Your task to perform on an android device: add a label to a message in the gmail app Image 0: 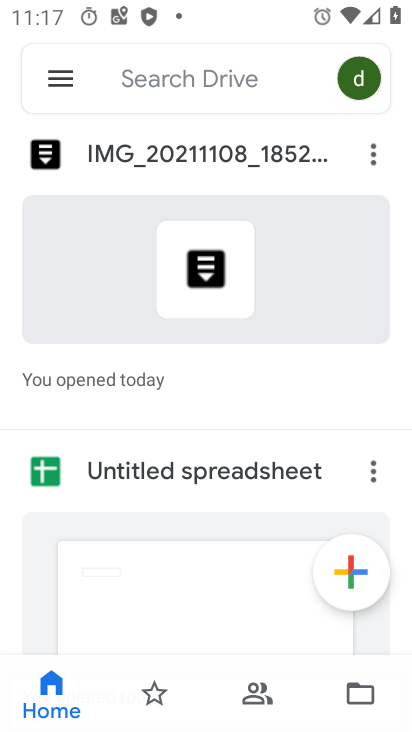
Step 0: press home button
Your task to perform on an android device: add a label to a message in the gmail app Image 1: 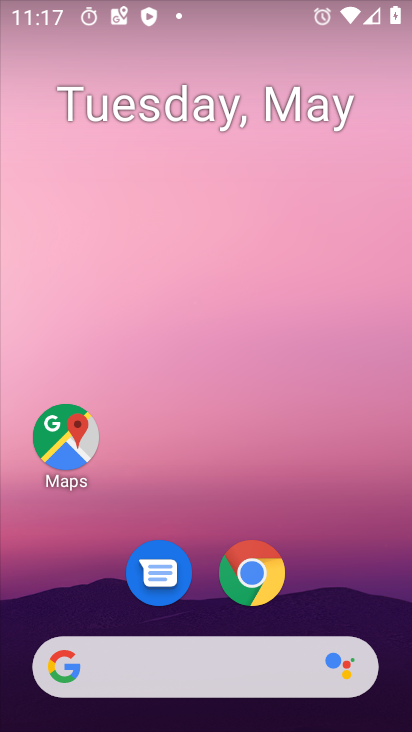
Step 1: drag from (270, 687) to (292, 29)
Your task to perform on an android device: add a label to a message in the gmail app Image 2: 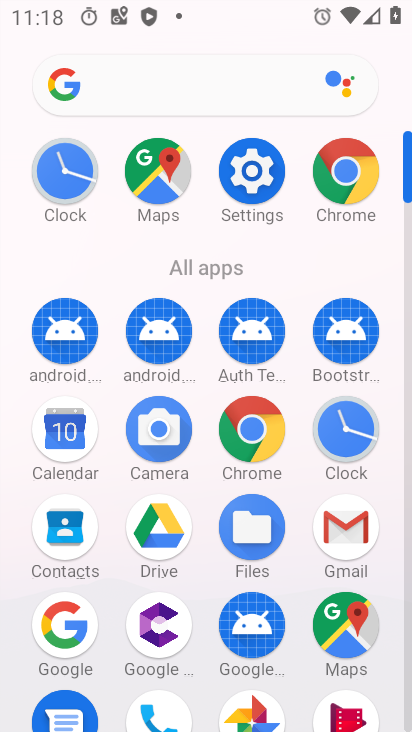
Step 2: click (237, 174)
Your task to perform on an android device: add a label to a message in the gmail app Image 3: 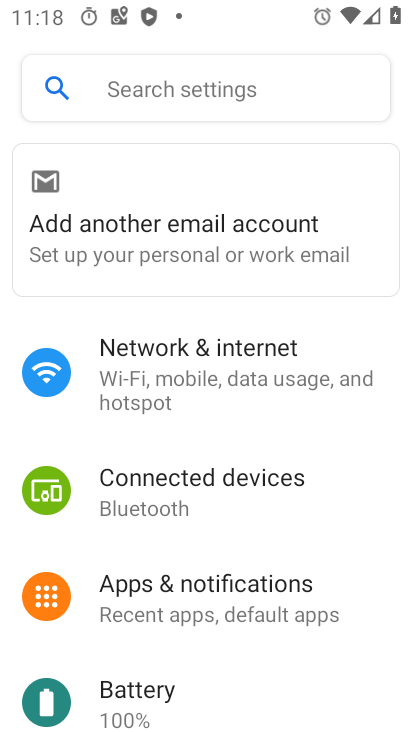
Step 3: press home button
Your task to perform on an android device: add a label to a message in the gmail app Image 4: 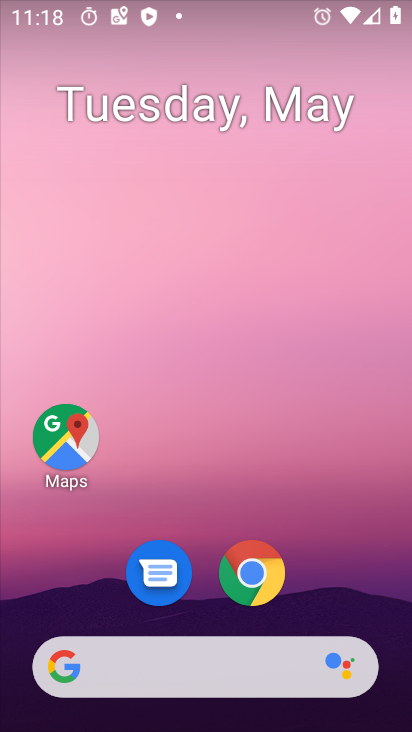
Step 4: drag from (182, 704) to (294, 150)
Your task to perform on an android device: add a label to a message in the gmail app Image 5: 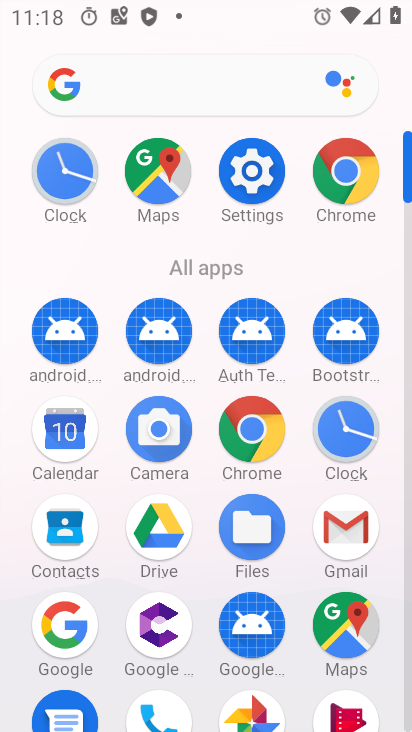
Step 5: click (326, 518)
Your task to perform on an android device: add a label to a message in the gmail app Image 6: 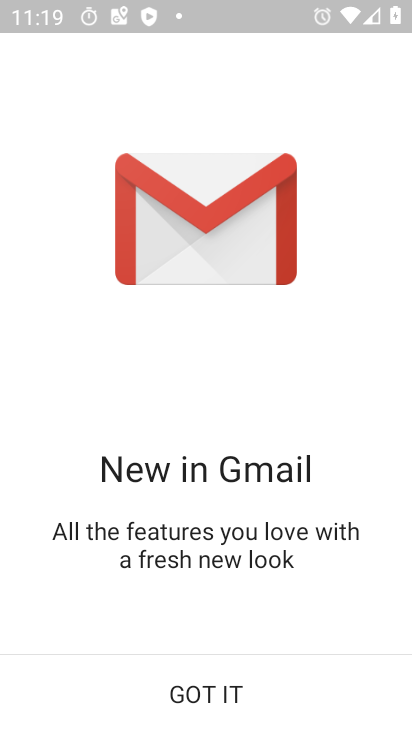
Step 6: click (213, 687)
Your task to perform on an android device: add a label to a message in the gmail app Image 7: 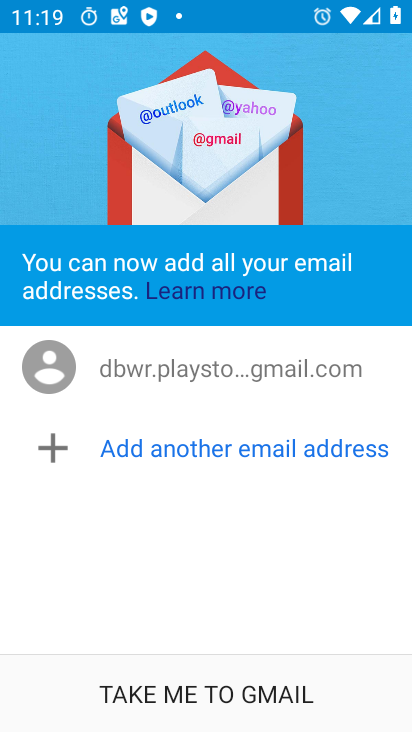
Step 7: click (233, 697)
Your task to perform on an android device: add a label to a message in the gmail app Image 8: 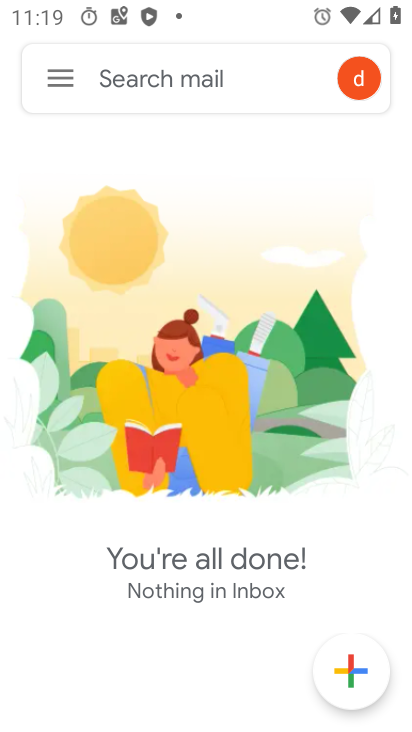
Step 8: click (49, 69)
Your task to perform on an android device: add a label to a message in the gmail app Image 9: 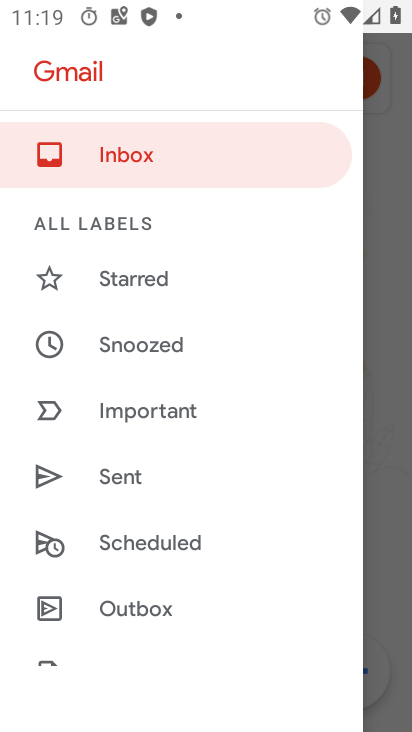
Step 9: drag from (131, 496) to (233, 150)
Your task to perform on an android device: add a label to a message in the gmail app Image 10: 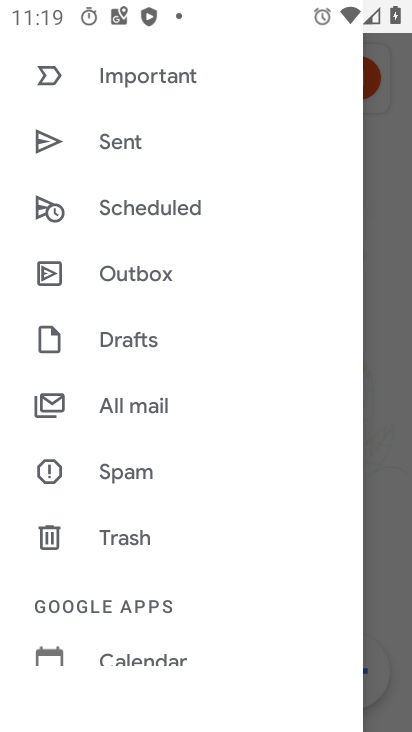
Step 10: drag from (167, 508) to (281, 123)
Your task to perform on an android device: add a label to a message in the gmail app Image 11: 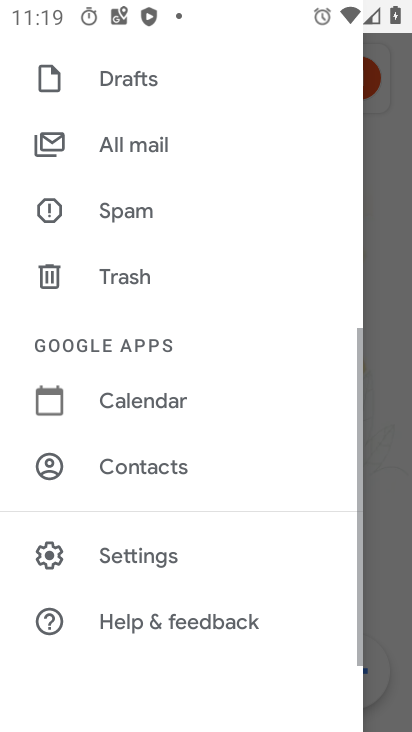
Step 11: click (157, 558)
Your task to perform on an android device: add a label to a message in the gmail app Image 12: 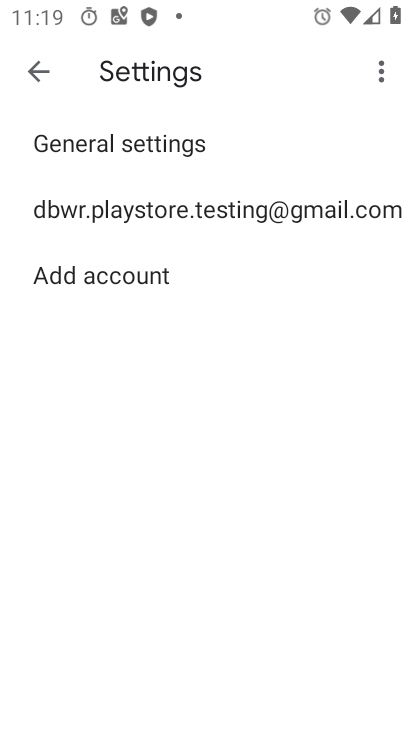
Step 12: click (130, 208)
Your task to perform on an android device: add a label to a message in the gmail app Image 13: 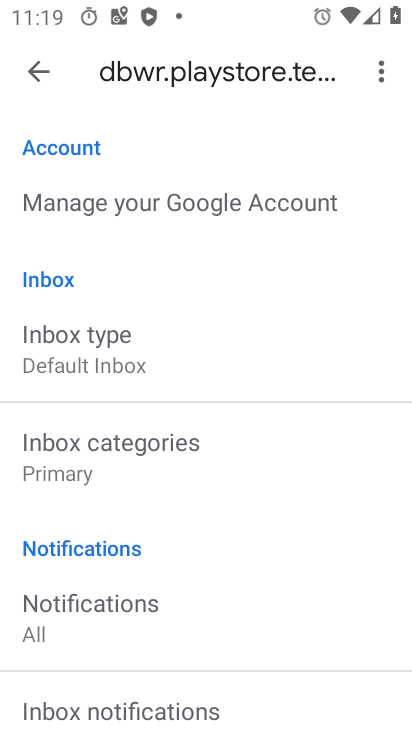
Step 13: drag from (113, 539) to (162, 389)
Your task to perform on an android device: add a label to a message in the gmail app Image 14: 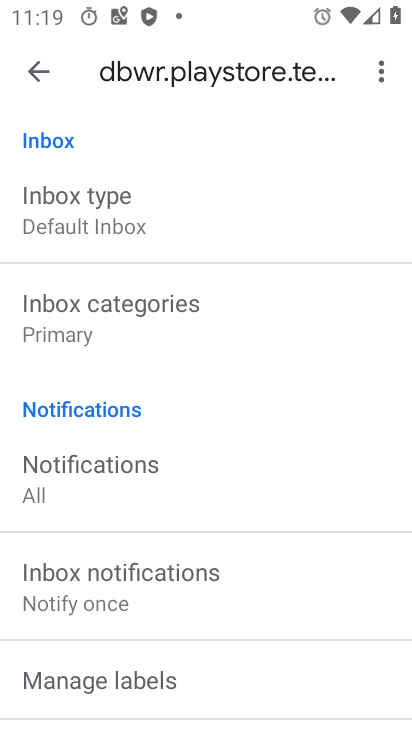
Step 14: click (128, 672)
Your task to perform on an android device: add a label to a message in the gmail app Image 15: 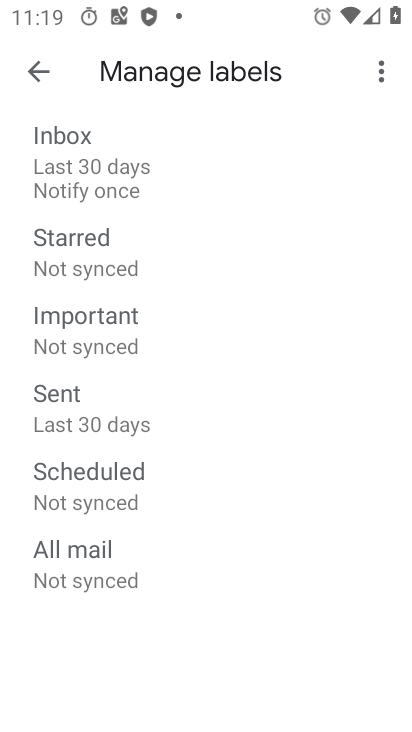
Step 15: click (115, 162)
Your task to perform on an android device: add a label to a message in the gmail app Image 16: 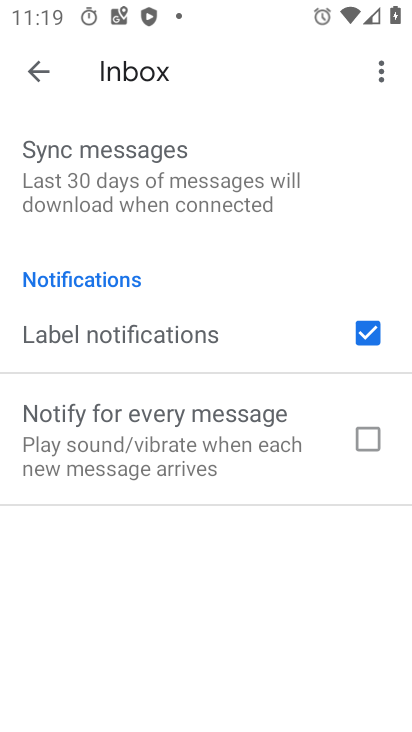
Step 16: task complete